Your task to perform on an android device: show emergency info Image 0: 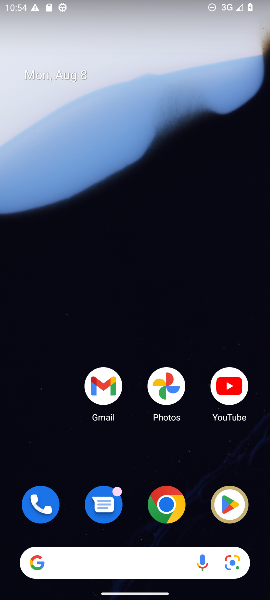
Step 0: drag from (138, 458) to (157, 75)
Your task to perform on an android device: show emergency info Image 1: 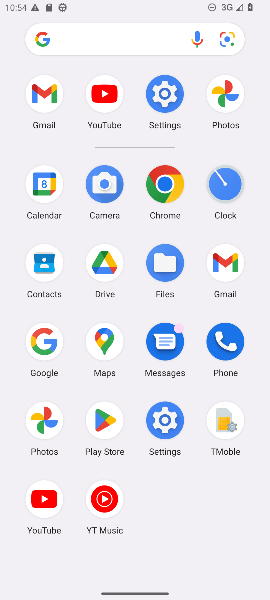
Step 1: click (167, 428)
Your task to perform on an android device: show emergency info Image 2: 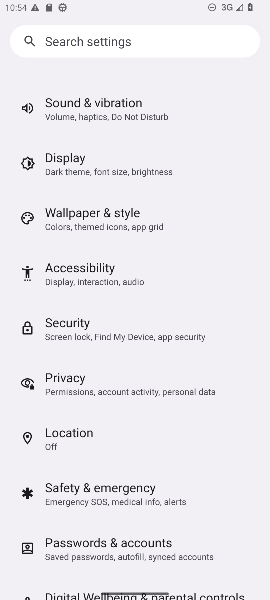
Step 2: drag from (130, 469) to (154, 20)
Your task to perform on an android device: show emergency info Image 3: 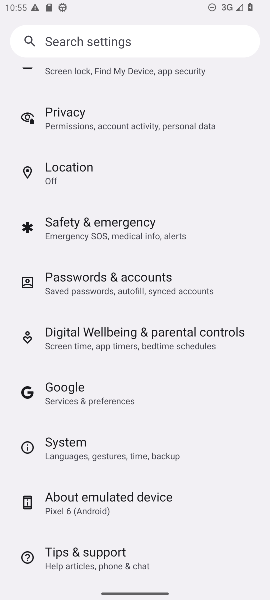
Step 3: click (66, 495)
Your task to perform on an android device: show emergency info Image 4: 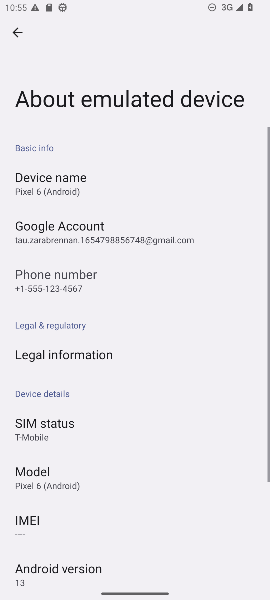
Step 4: task complete